Your task to perform on an android device: turn on priority inbox in the gmail app Image 0: 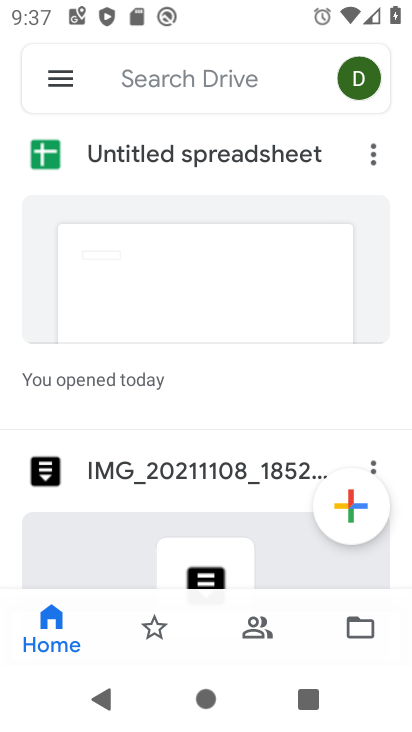
Step 0: press home button
Your task to perform on an android device: turn on priority inbox in the gmail app Image 1: 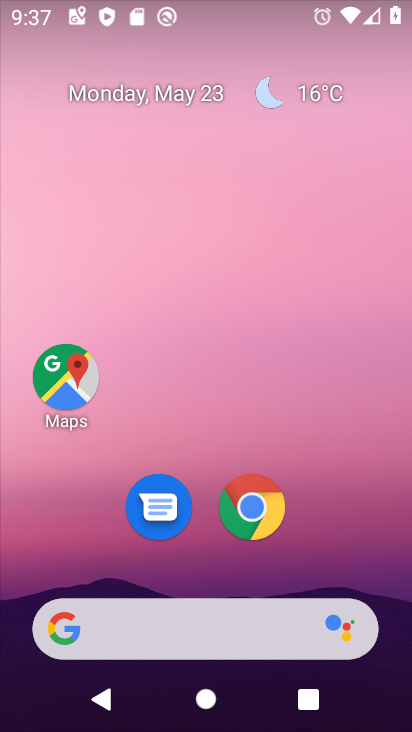
Step 1: drag from (377, 398) to (9, 568)
Your task to perform on an android device: turn on priority inbox in the gmail app Image 2: 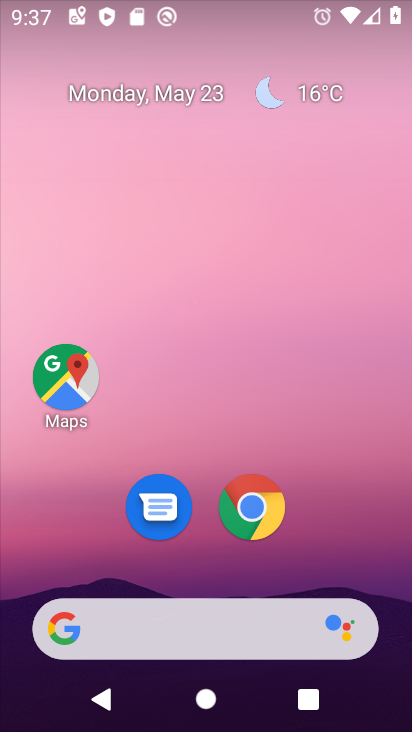
Step 2: drag from (360, 569) to (276, 17)
Your task to perform on an android device: turn on priority inbox in the gmail app Image 3: 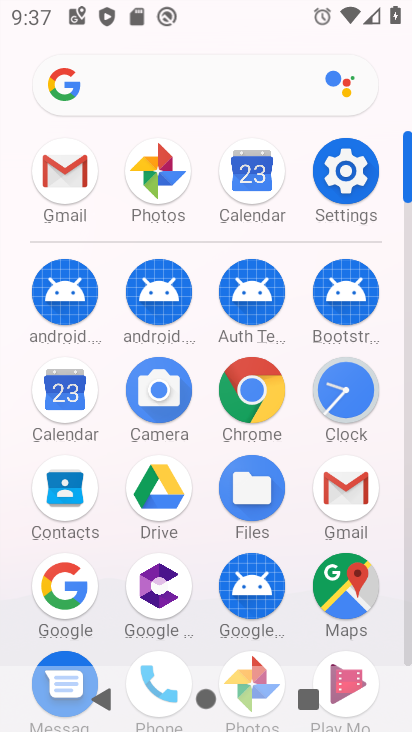
Step 3: click (46, 166)
Your task to perform on an android device: turn on priority inbox in the gmail app Image 4: 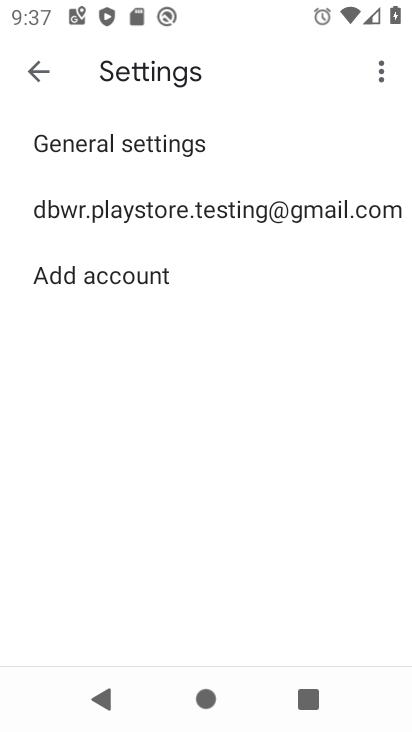
Step 4: click (74, 213)
Your task to perform on an android device: turn on priority inbox in the gmail app Image 5: 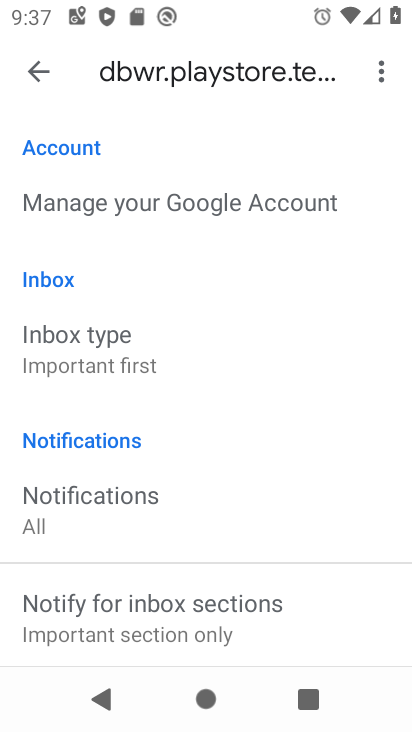
Step 5: click (84, 335)
Your task to perform on an android device: turn on priority inbox in the gmail app Image 6: 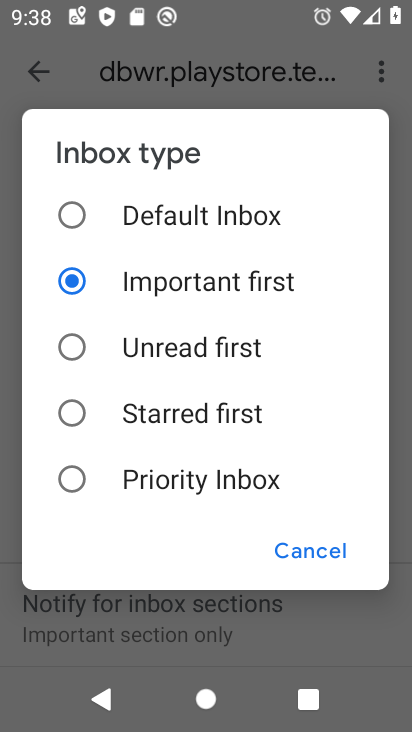
Step 6: click (78, 480)
Your task to perform on an android device: turn on priority inbox in the gmail app Image 7: 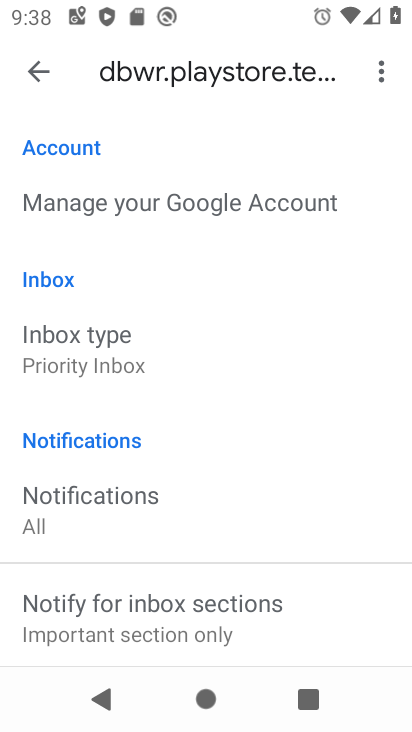
Step 7: task complete